Your task to perform on an android device: Open Maps and search for coffee Image 0: 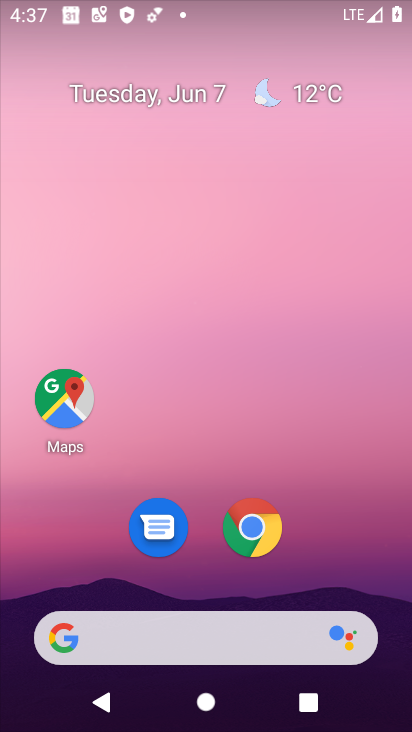
Step 0: click (64, 400)
Your task to perform on an android device: Open Maps and search for coffee Image 1: 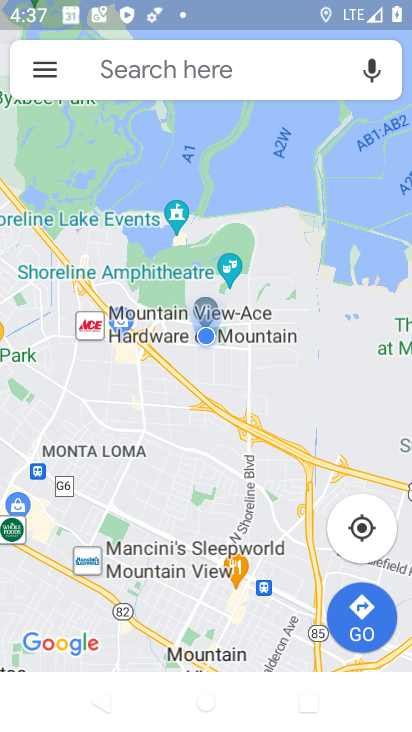
Step 1: click (184, 58)
Your task to perform on an android device: Open Maps and search for coffee Image 2: 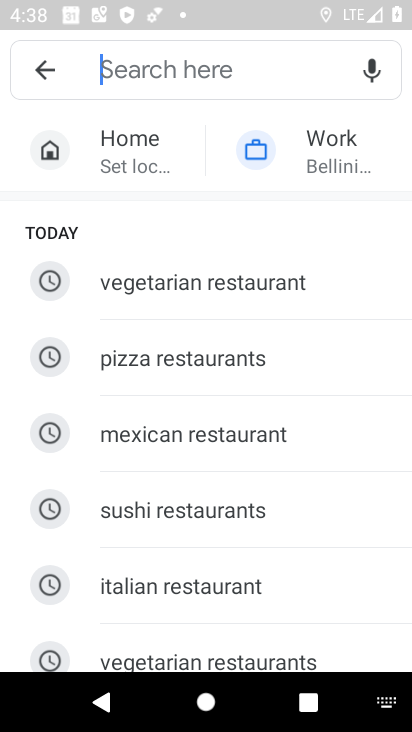
Step 2: type "coffee"
Your task to perform on an android device: Open Maps and search for coffee Image 3: 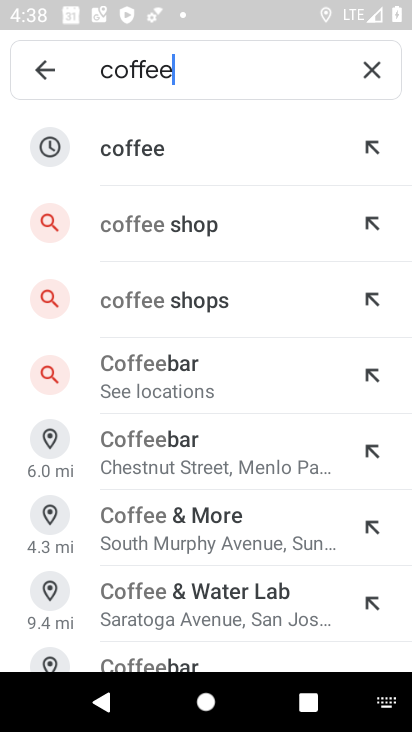
Step 3: click (155, 145)
Your task to perform on an android device: Open Maps and search for coffee Image 4: 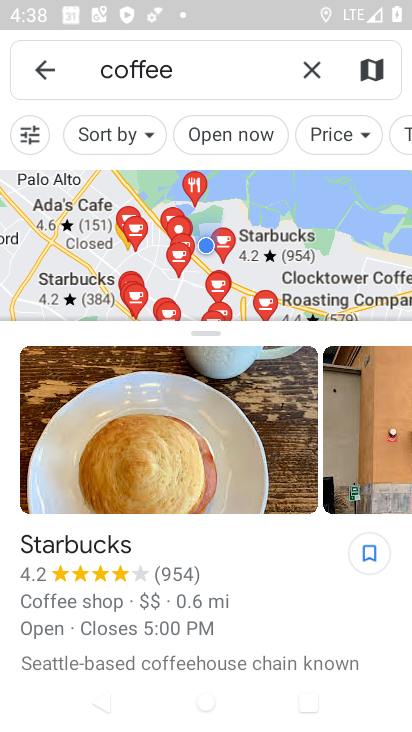
Step 4: task complete